Your task to perform on an android device: delete a single message in the gmail app Image 0: 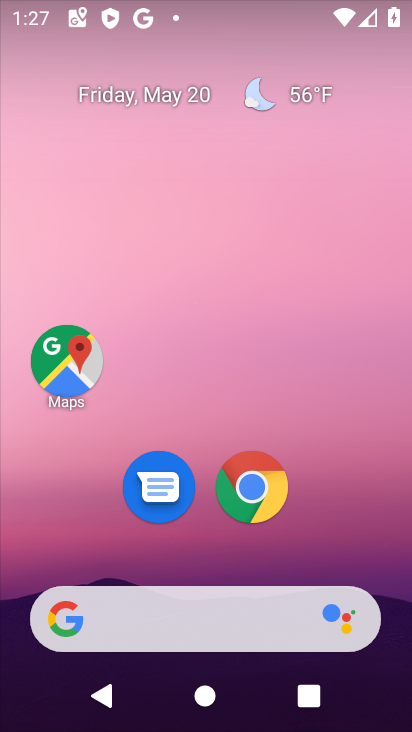
Step 0: press home button
Your task to perform on an android device: delete a single message in the gmail app Image 1: 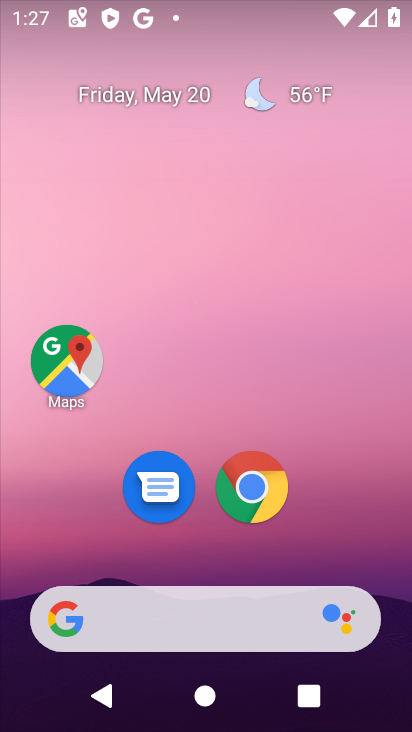
Step 1: drag from (213, 555) to (238, 68)
Your task to perform on an android device: delete a single message in the gmail app Image 2: 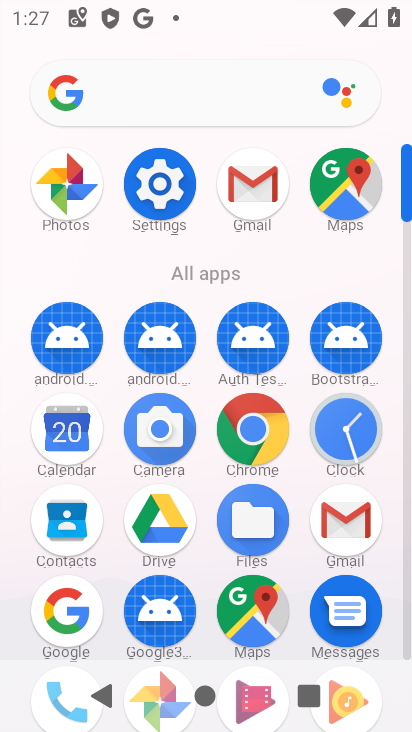
Step 2: click (250, 178)
Your task to perform on an android device: delete a single message in the gmail app Image 3: 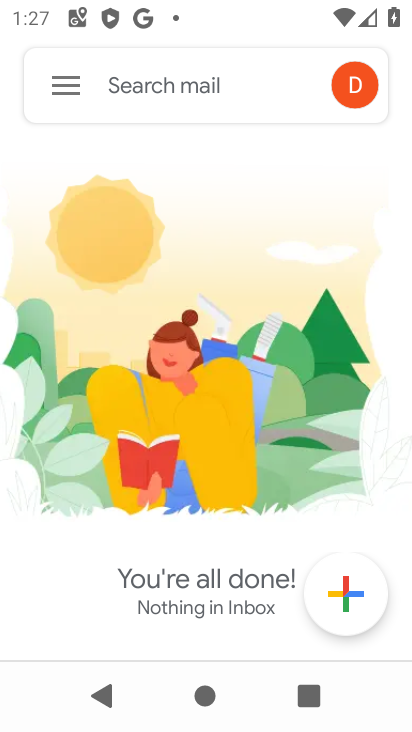
Step 3: click (60, 83)
Your task to perform on an android device: delete a single message in the gmail app Image 4: 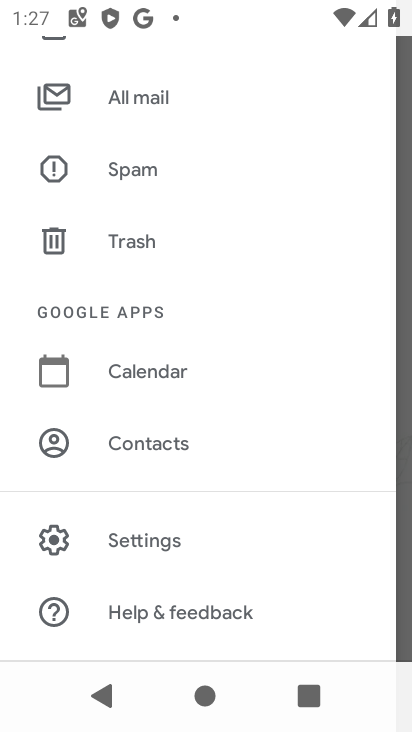
Step 4: click (126, 103)
Your task to perform on an android device: delete a single message in the gmail app Image 5: 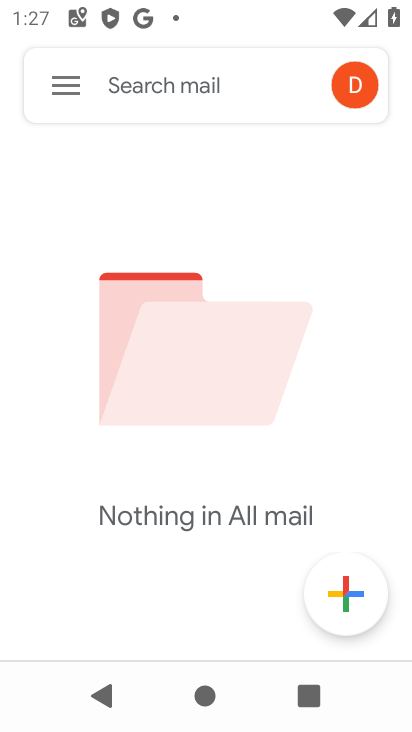
Step 5: task complete